Your task to perform on an android device: add a contact Image 0: 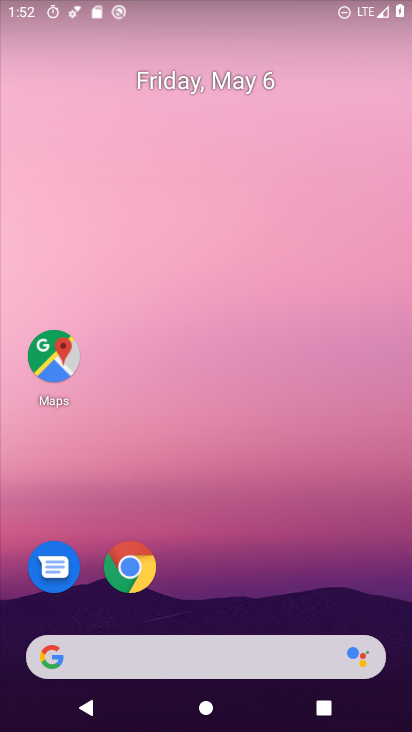
Step 0: drag from (239, 680) to (204, 177)
Your task to perform on an android device: add a contact Image 1: 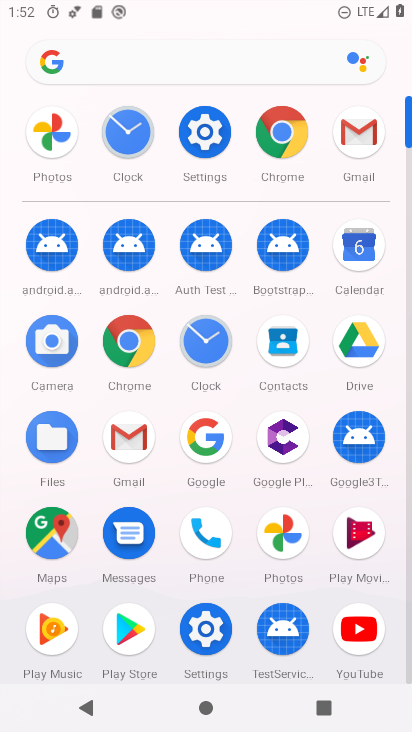
Step 1: click (204, 532)
Your task to perform on an android device: add a contact Image 2: 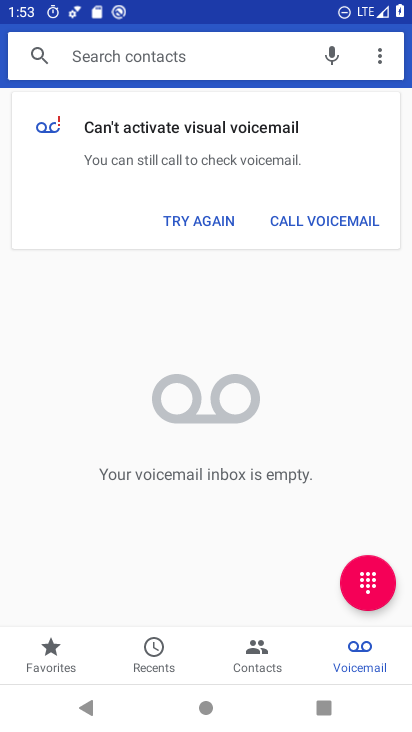
Step 2: click (252, 657)
Your task to perform on an android device: add a contact Image 3: 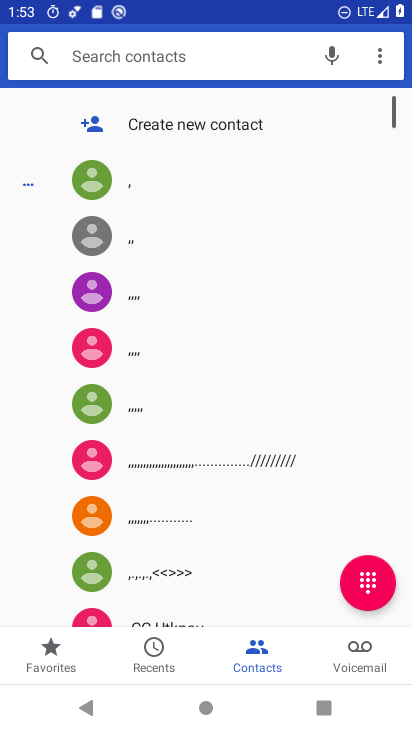
Step 3: click (181, 125)
Your task to perform on an android device: add a contact Image 4: 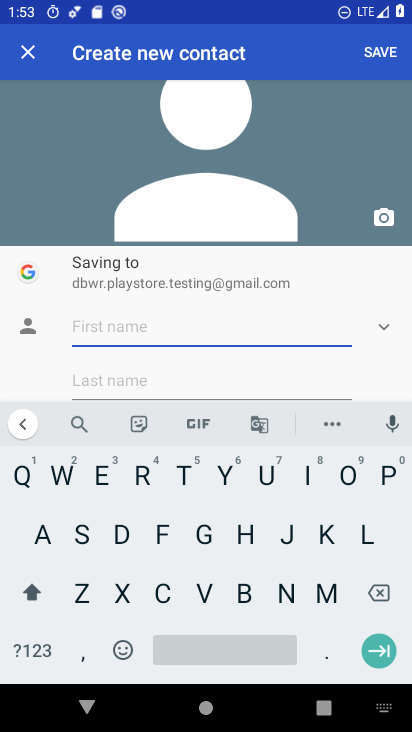
Step 4: click (185, 476)
Your task to perform on an android device: add a contact Image 5: 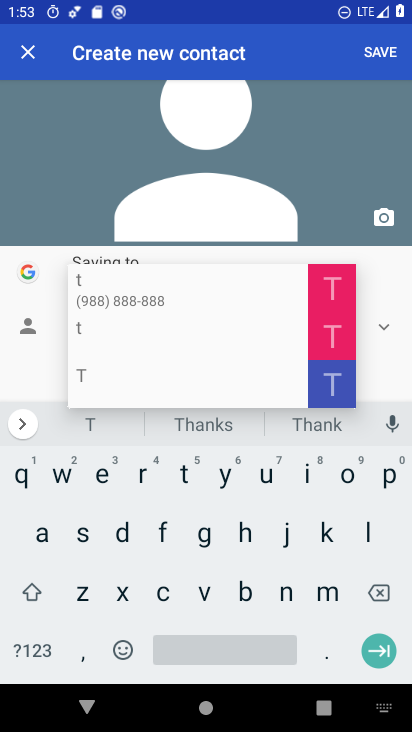
Step 5: click (201, 588)
Your task to perform on an android device: add a contact Image 6: 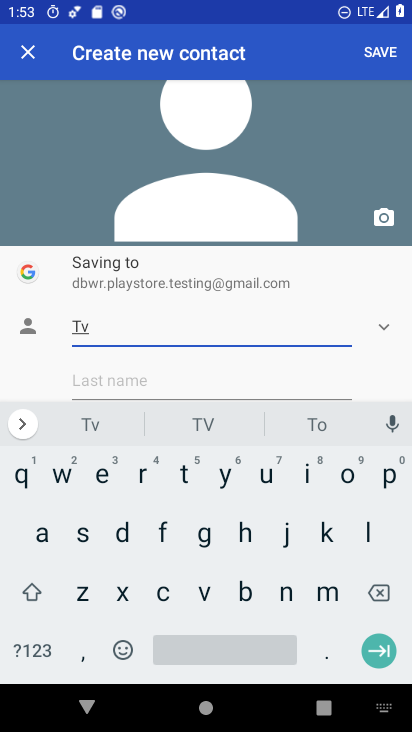
Step 6: click (324, 586)
Your task to perform on an android device: add a contact Image 7: 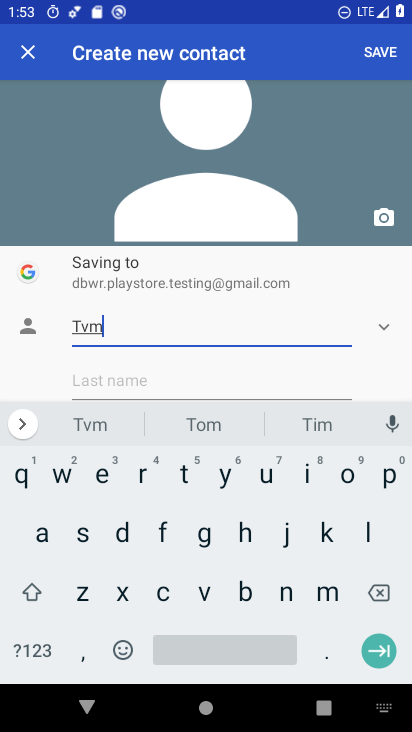
Step 7: click (380, 51)
Your task to perform on an android device: add a contact Image 8: 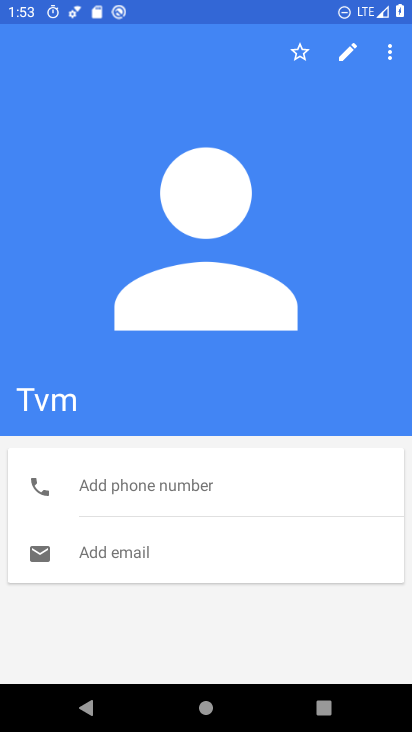
Step 8: task complete